Your task to perform on an android device: add a contact Image 0: 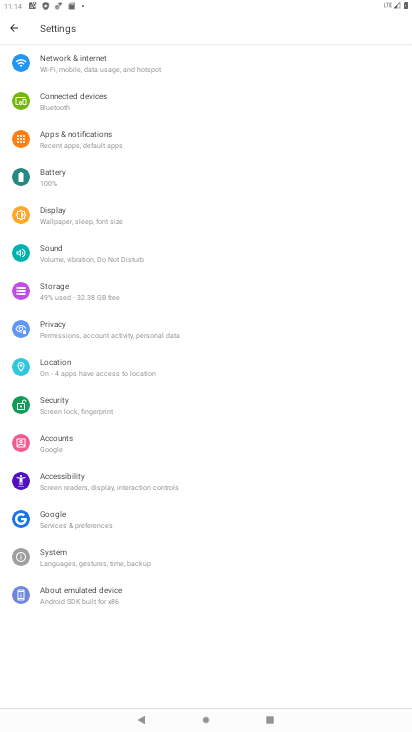
Step 0: press home button
Your task to perform on an android device: add a contact Image 1: 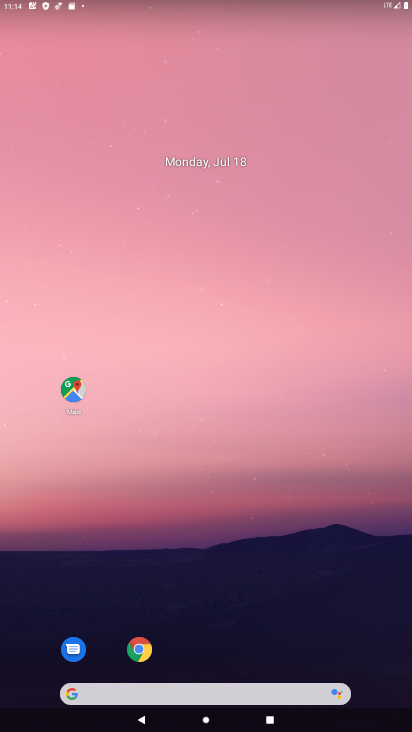
Step 1: drag from (240, 728) to (262, 50)
Your task to perform on an android device: add a contact Image 2: 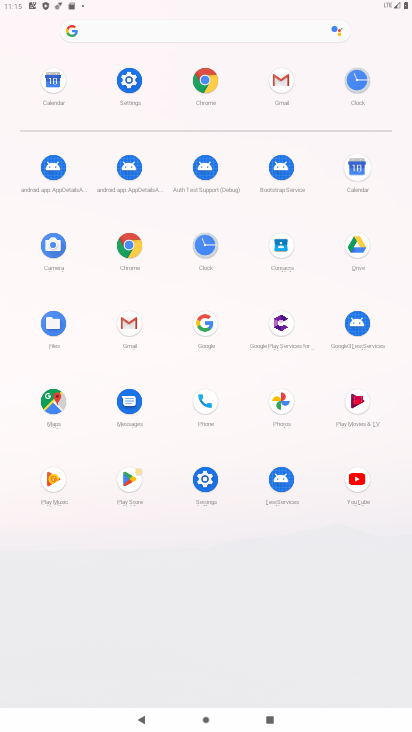
Step 2: click (289, 256)
Your task to perform on an android device: add a contact Image 3: 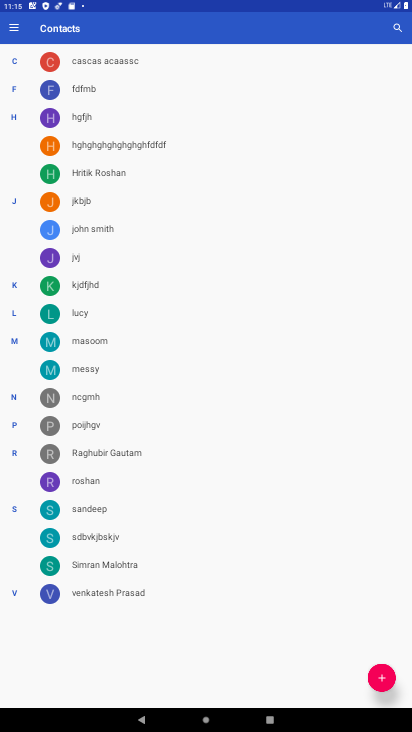
Step 3: click (392, 673)
Your task to perform on an android device: add a contact Image 4: 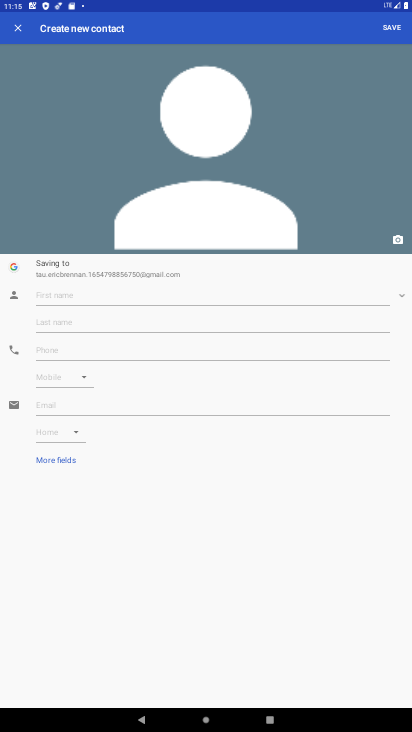
Step 4: click (100, 294)
Your task to perform on an android device: add a contact Image 5: 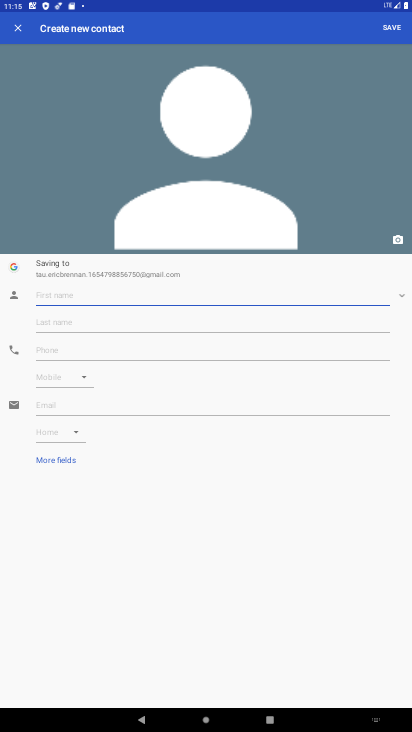
Step 5: type "yhf"
Your task to perform on an android device: add a contact Image 6: 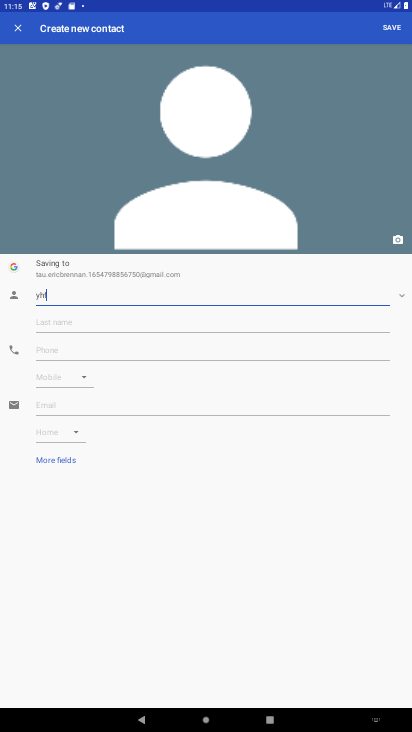
Step 6: click (113, 351)
Your task to perform on an android device: add a contact Image 7: 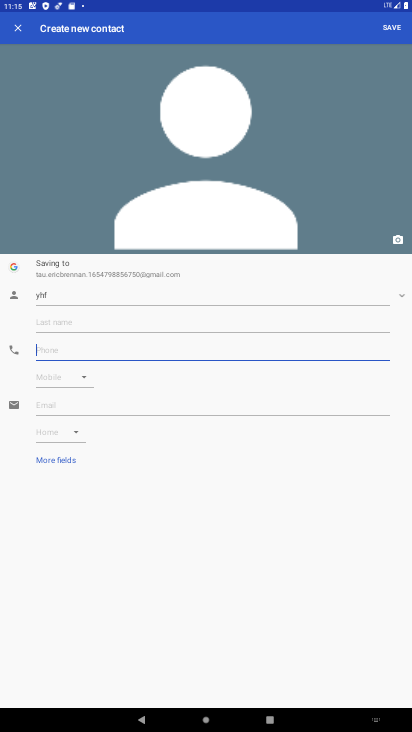
Step 7: click (114, 352)
Your task to perform on an android device: add a contact Image 8: 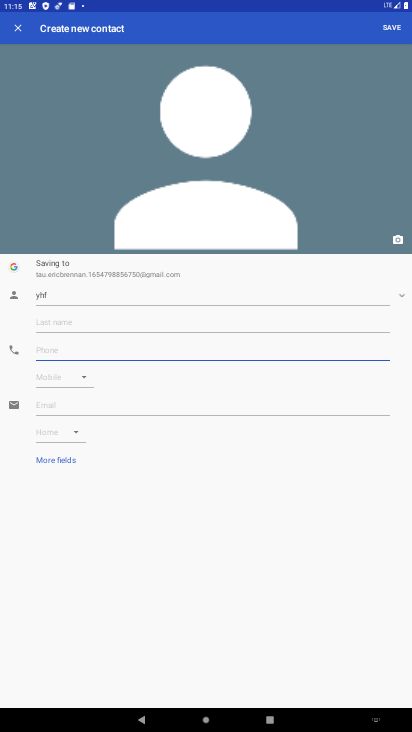
Step 8: type "8809"
Your task to perform on an android device: add a contact Image 9: 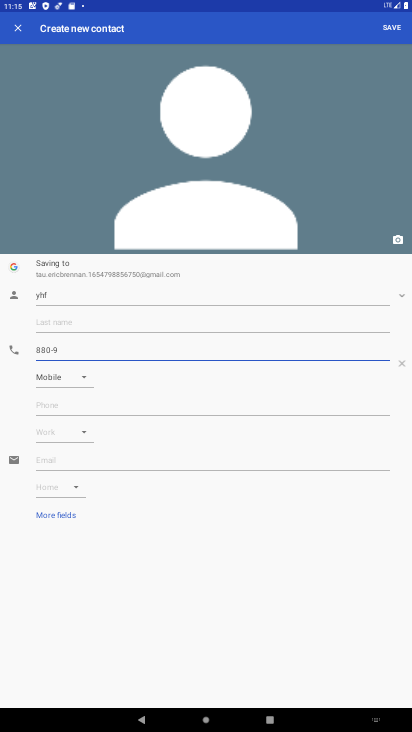
Step 9: click (391, 31)
Your task to perform on an android device: add a contact Image 10: 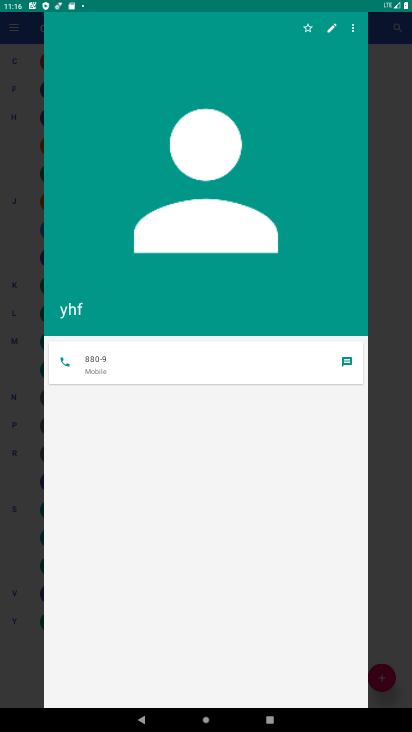
Step 10: task complete